Your task to perform on an android device: Open Youtube and go to "Your channel" Image 0: 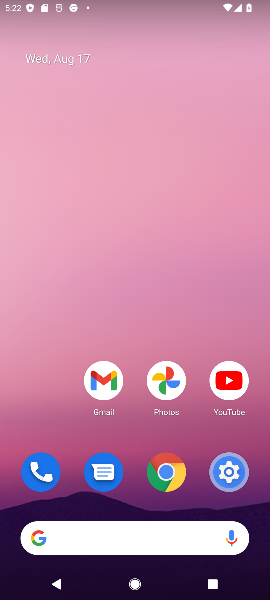
Step 0: click (220, 372)
Your task to perform on an android device: Open Youtube and go to "Your channel" Image 1: 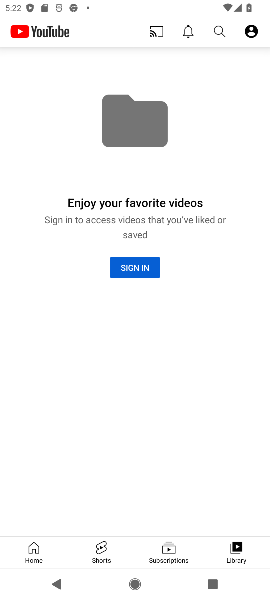
Step 1: click (250, 30)
Your task to perform on an android device: Open Youtube and go to "Your channel" Image 2: 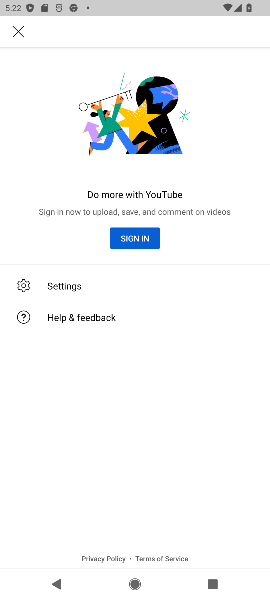
Step 2: task complete